Your task to perform on an android device: Search for pizza restaurants on Maps Image 0: 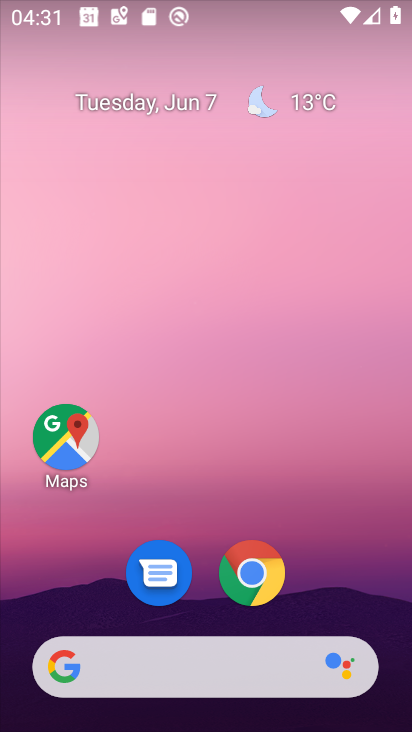
Step 0: drag from (395, 696) to (319, 40)
Your task to perform on an android device: Search for pizza restaurants on Maps Image 1: 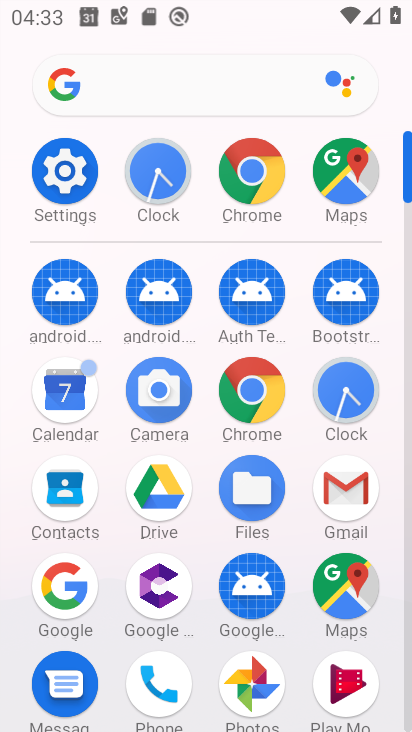
Step 1: click (339, 576)
Your task to perform on an android device: Search for pizza restaurants on Maps Image 2: 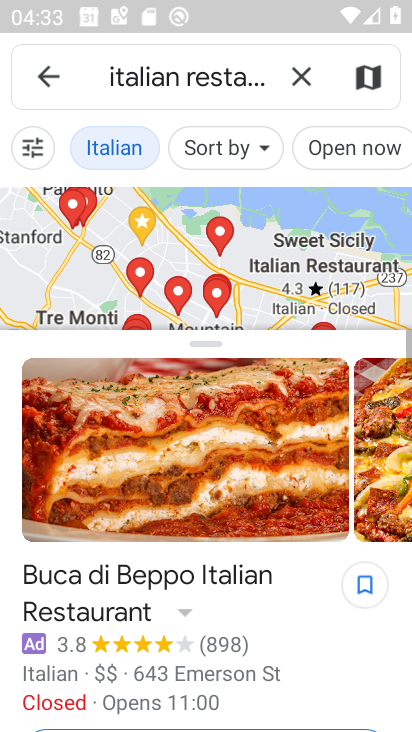
Step 2: click (283, 70)
Your task to perform on an android device: Search for pizza restaurants on Maps Image 3: 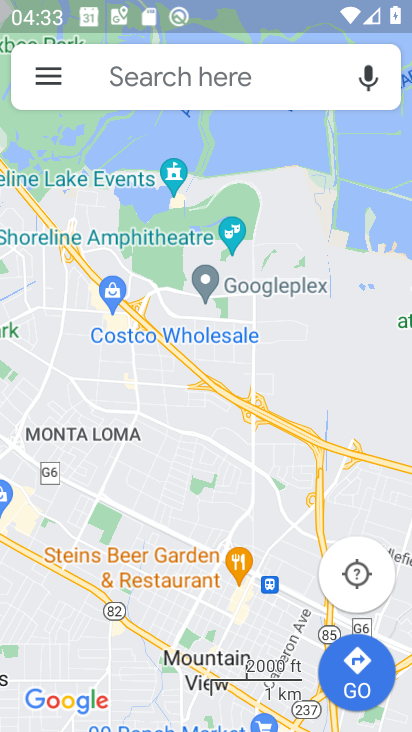
Step 3: click (260, 70)
Your task to perform on an android device: Search for pizza restaurants on Maps Image 4: 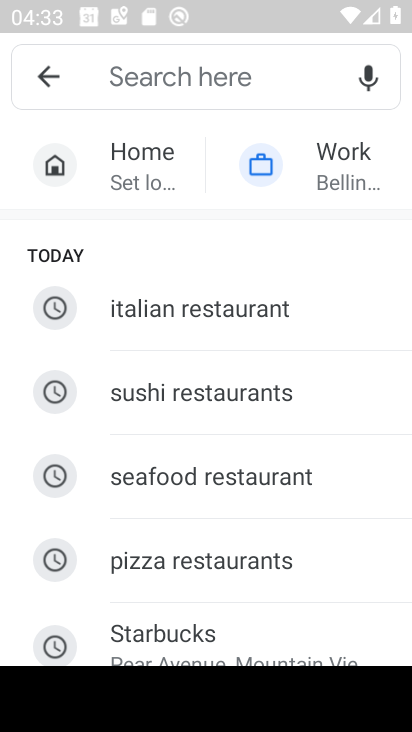
Step 4: type " pizza restaurants "
Your task to perform on an android device: Search for pizza restaurants on Maps Image 5: 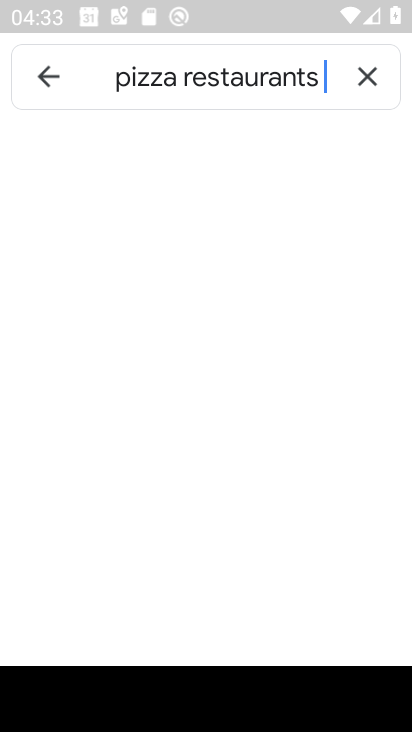
Step 5: type ""
Your task to perform on an android device: Search for pizza restaurants on Maps Image 6: 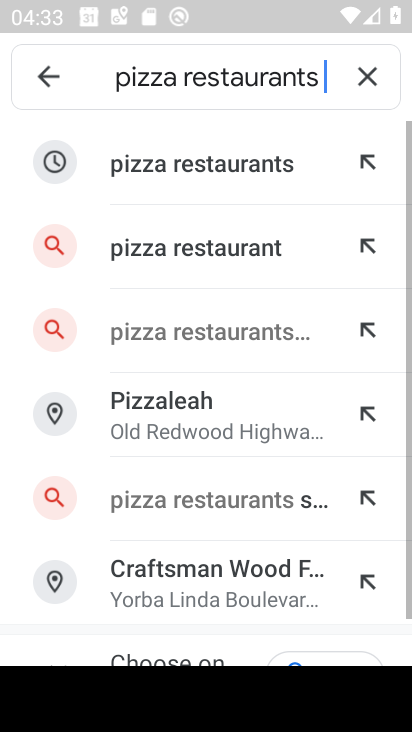
Step 6: click (150, 181)
Your task to perform on an android device: Search for pizza restaurants on Maps Image 7: 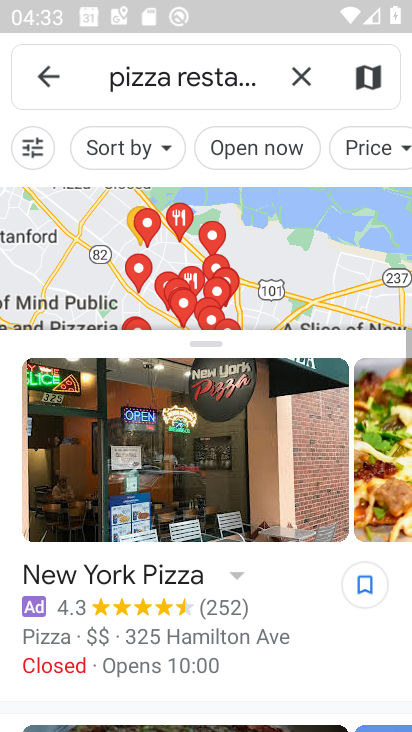
Step 7: task complete